Your task to perform on an android device: Look up the best rated kitchen knives on Amazon. Image 0: 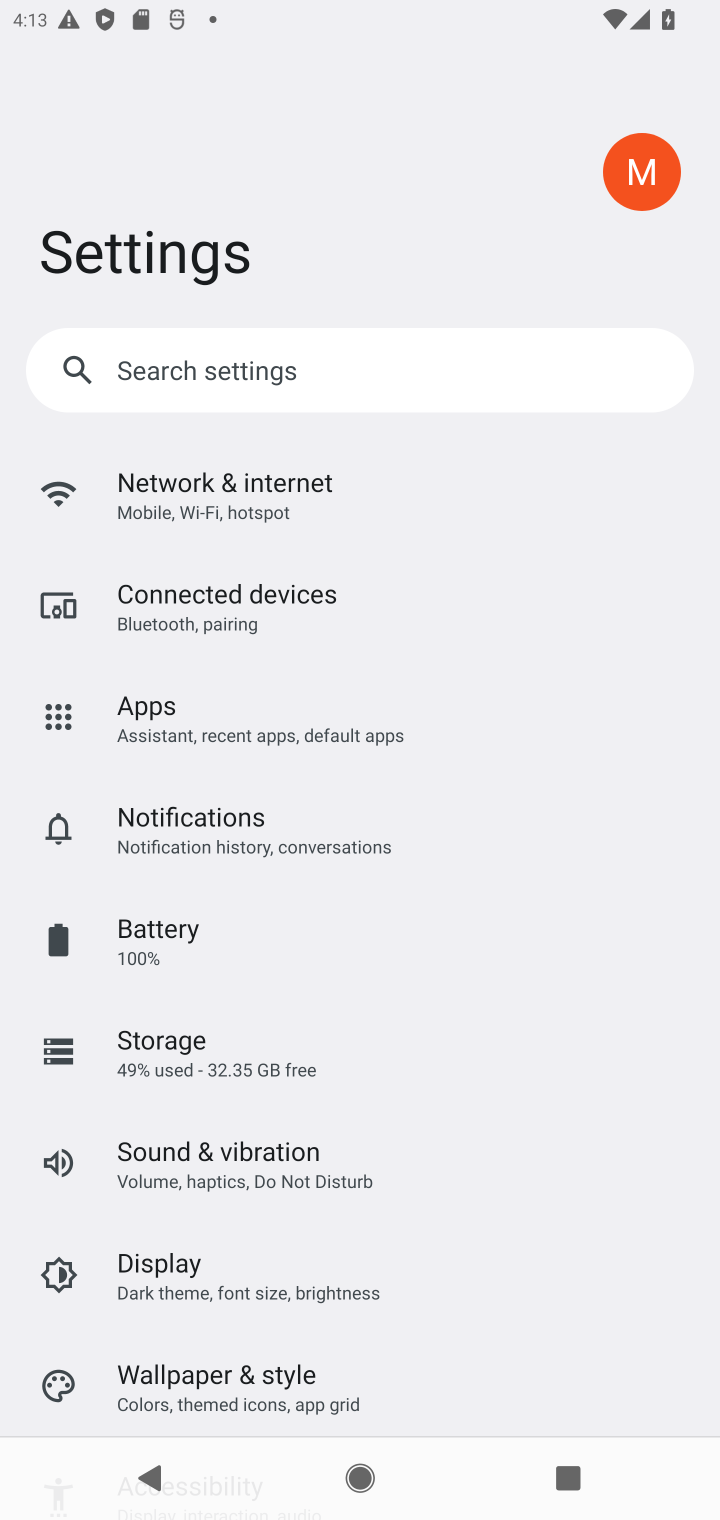
Step 0: press home button
Your task to perform on an android device: Look up the best rated kitchen knives on Amazon. Image 1: 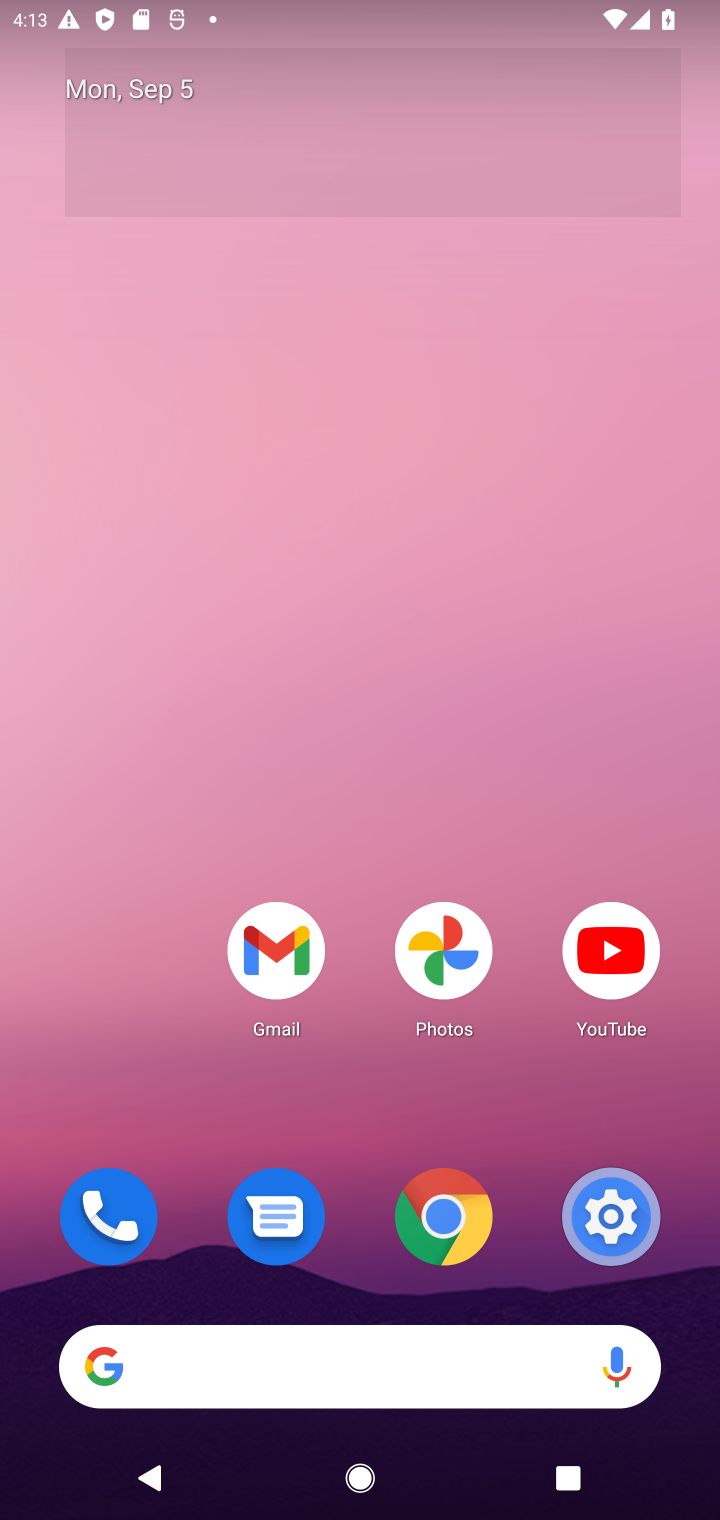
Step 1: click (96, 1377)
Your task to perform on an android device: Look up the best rated kitchen knives on Amazon. Image 2: 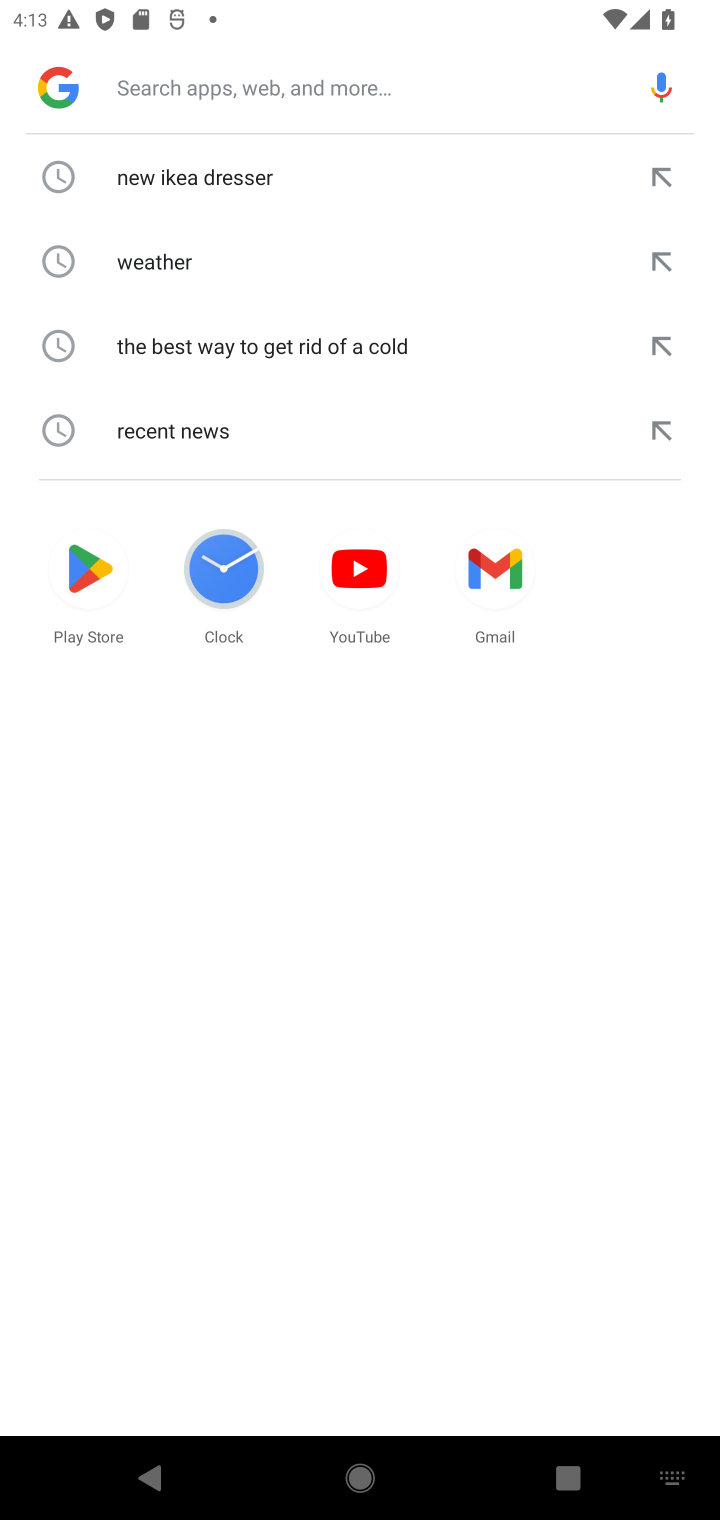
Step 2: type "Amazon"
Your task to perform on an android device: Look up the best rated kitchen knives on Amazon. Image 3: 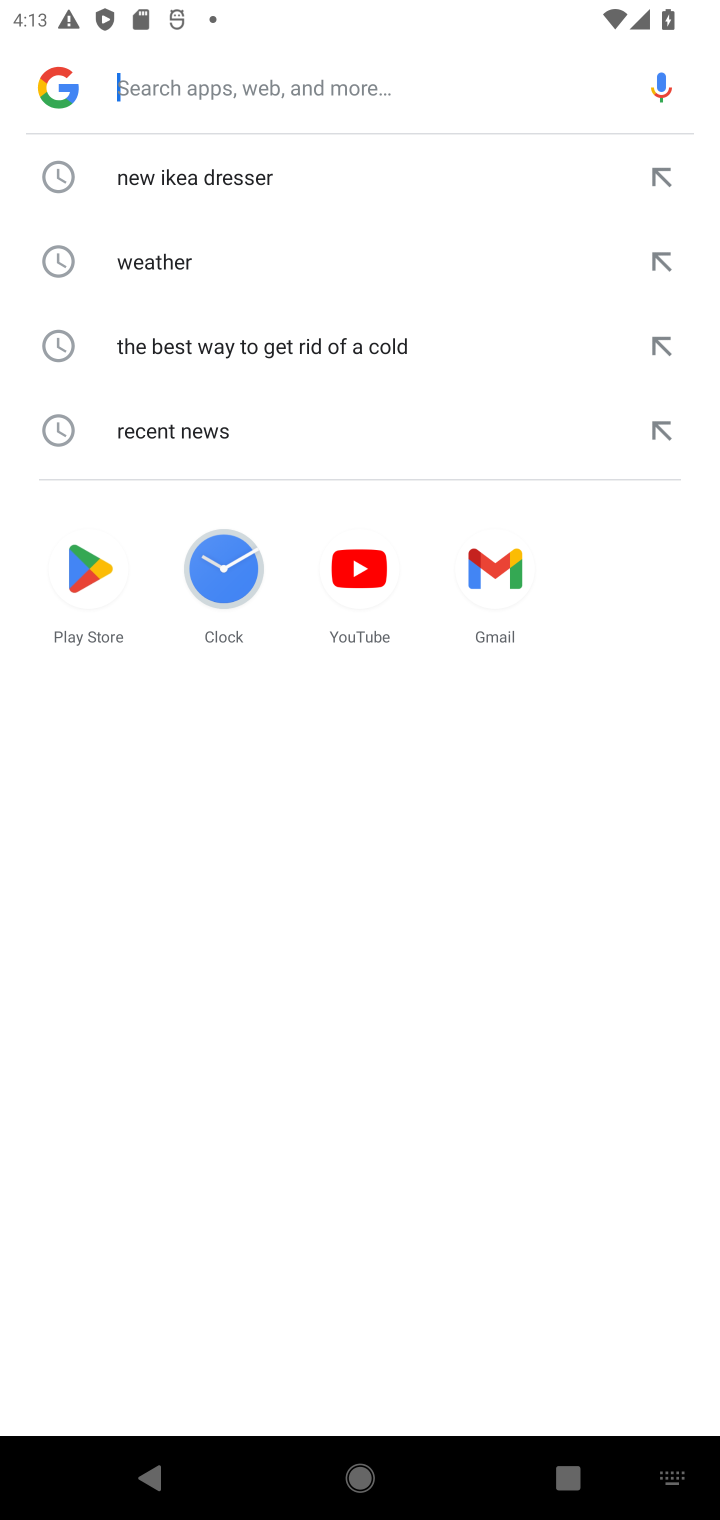
Step 3: click (179, 91)
Your task to perform on an android device: Look up the best rated kitchen knives on Amazon. Image 4: 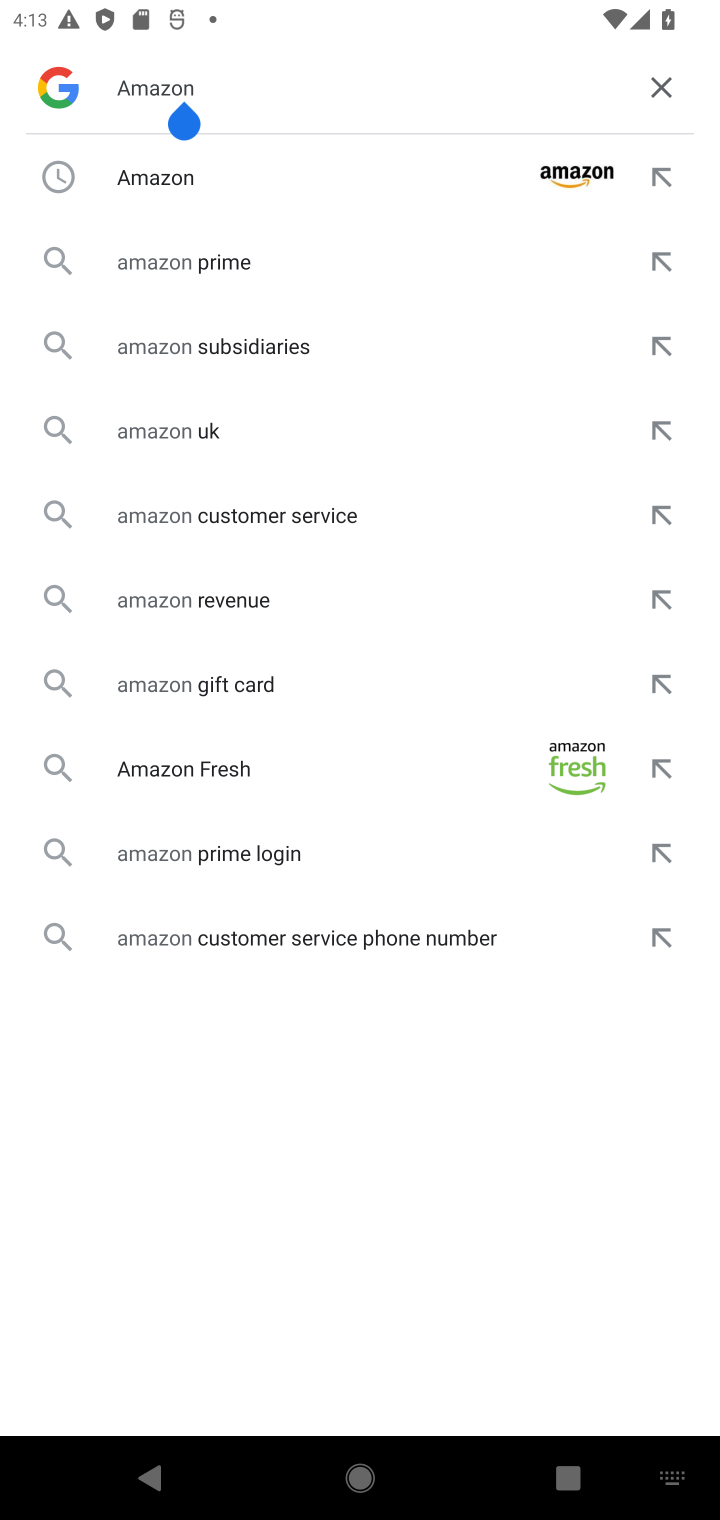
Step 4: click (565, 169)
Your task to perform on an android device: Look up the best rated kitchen knives on Amazon. Image 5: 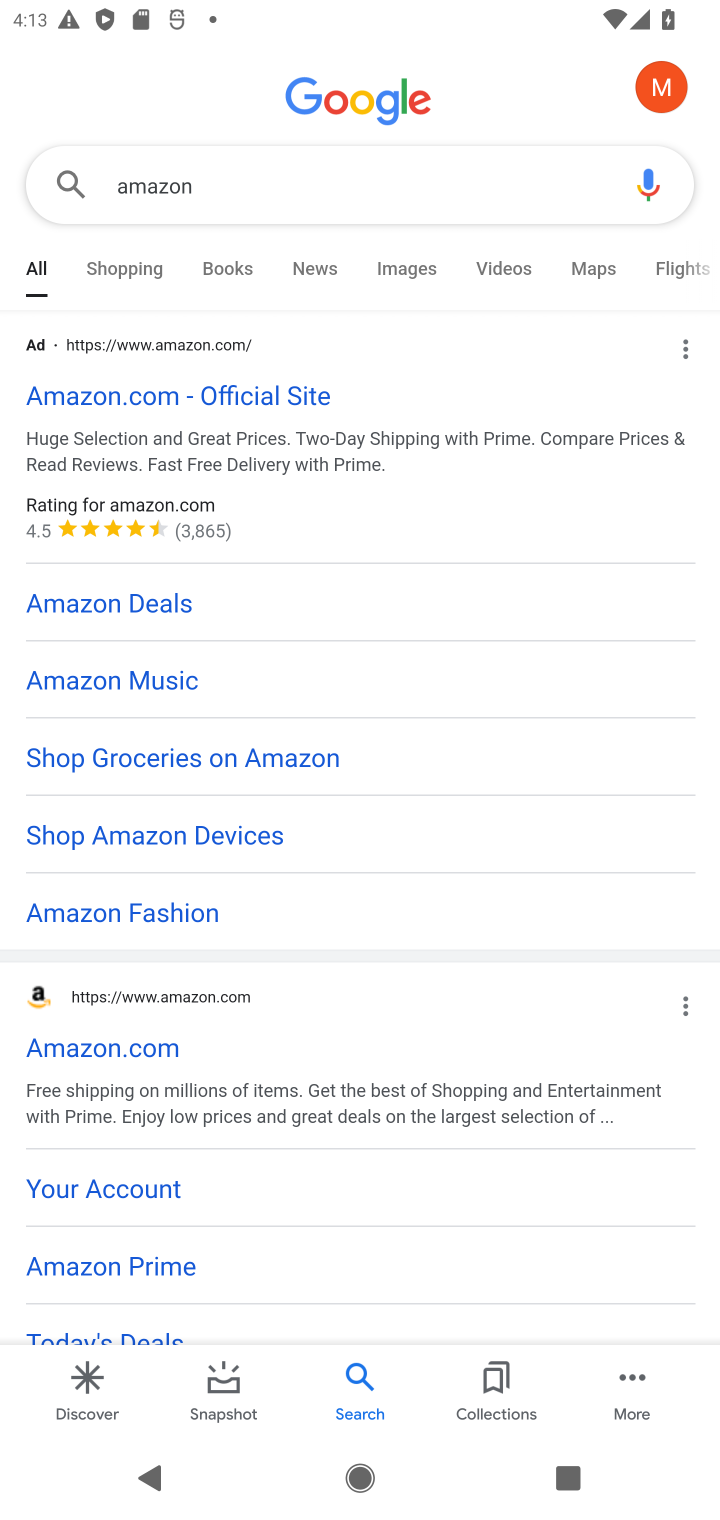
Step 5: click (111, 1056)
Your task to perform on an android device: Look up the best rated kitchen knives on Amazon. Image 6: 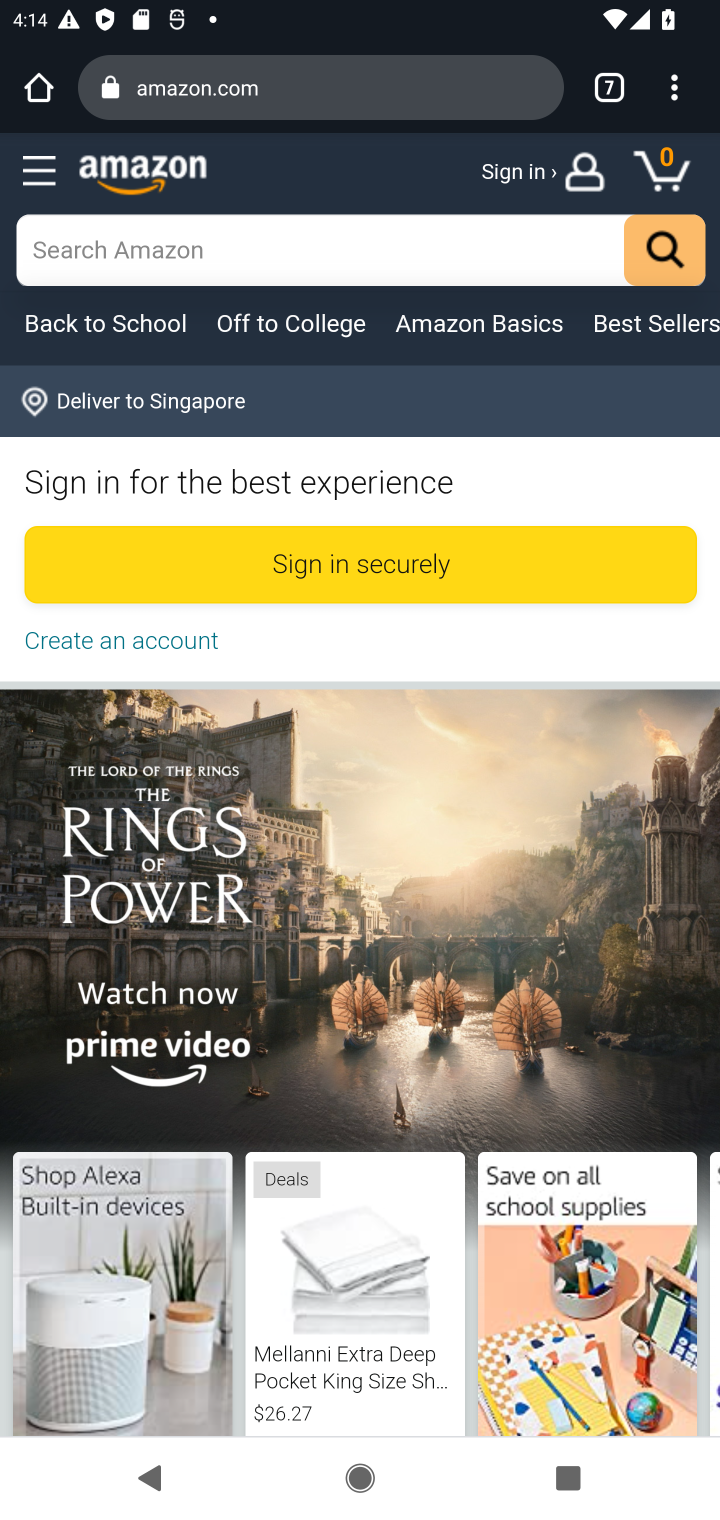
Step 6: click (161, 268)
Your task to perform on an android device: Look up the best rated kitchen knives on Amazon. Image 7: 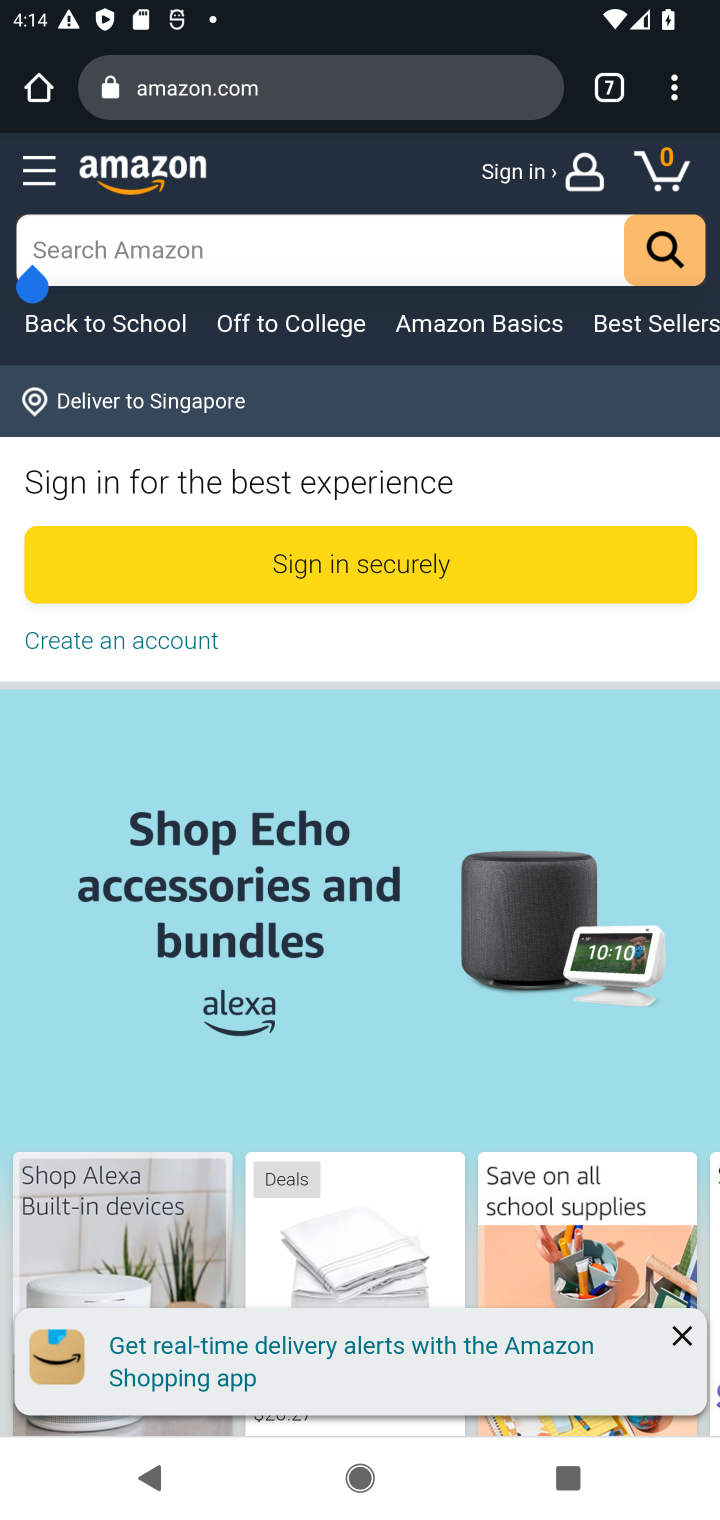
Step 7: type "kitchen knives"
Your task to perform on an android device: Look up the best rated kitchen knives on Amazon. Image 8: 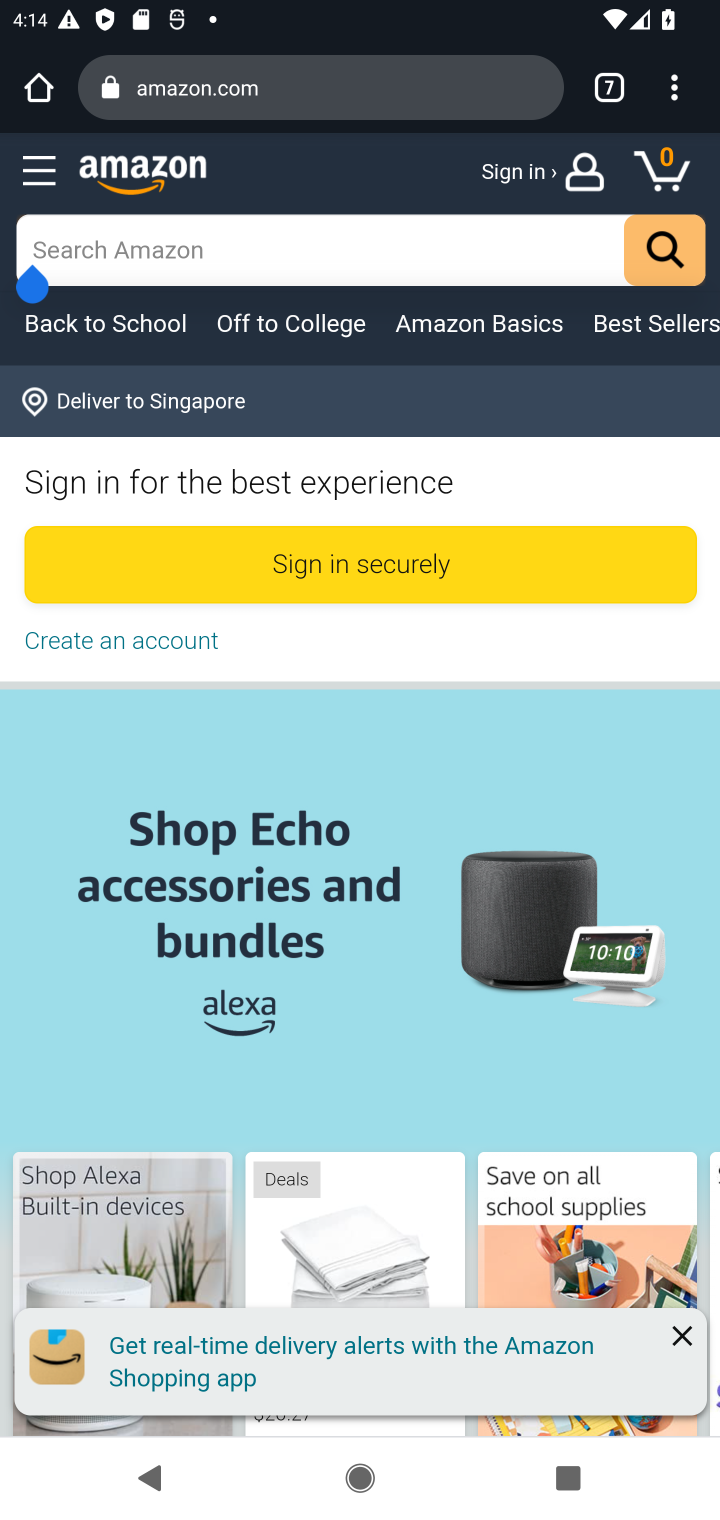
Step 8: click (262, 246)
Your task to perform on an android device: Look up the best rated kitchen knives on Amazon. Image 9: 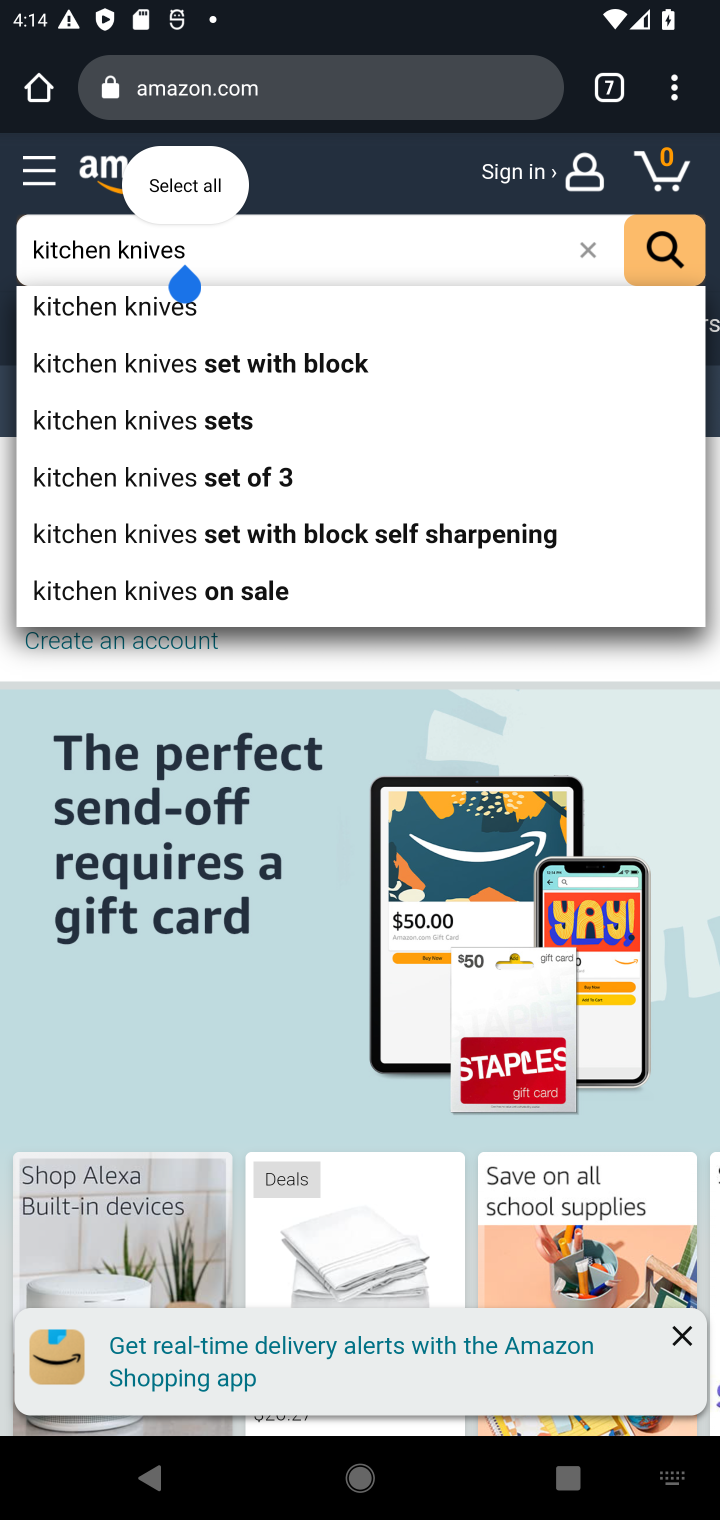
Step 9: press enter
Your task to perform on an android device: Look up the best rated kitchen knives on Amazon. Image 10: 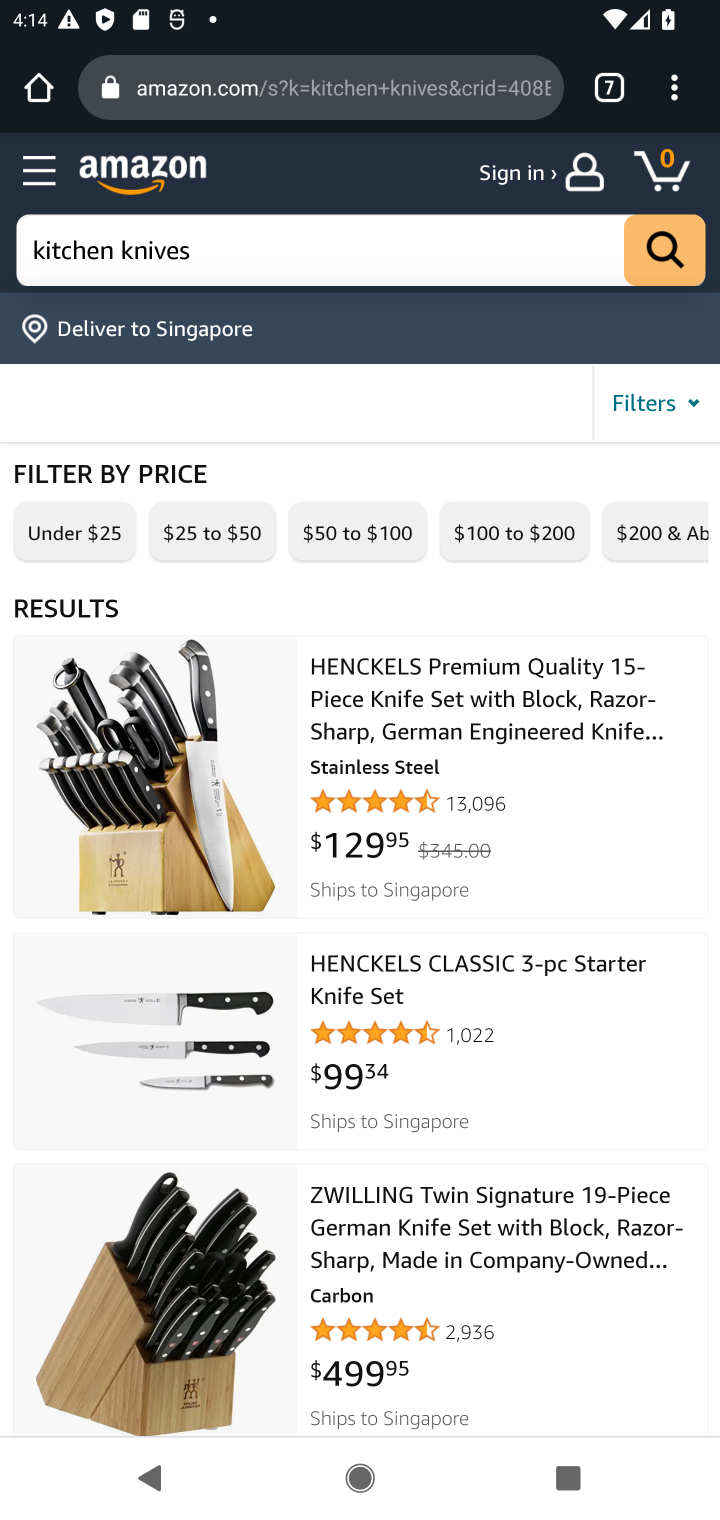
Step 10: click (694, 416)
Your task to perform on an android device: Look up the best rated kitchen knives on Amazon. Image 11: 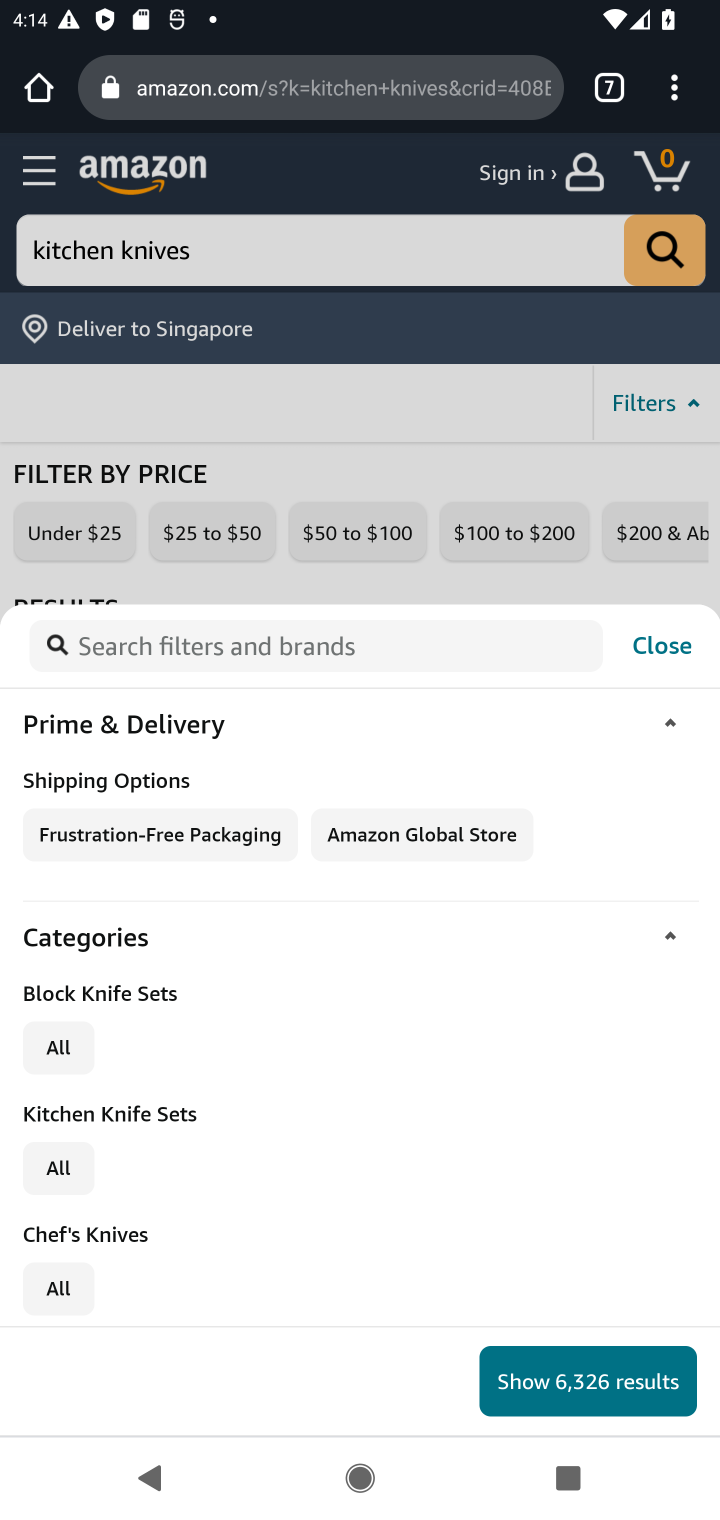
Step 11: drag from (387, 1208) to (395, 365)
Your task to perform on an android device: Look up the best rated kitchen knives on Amazon. Image 12: 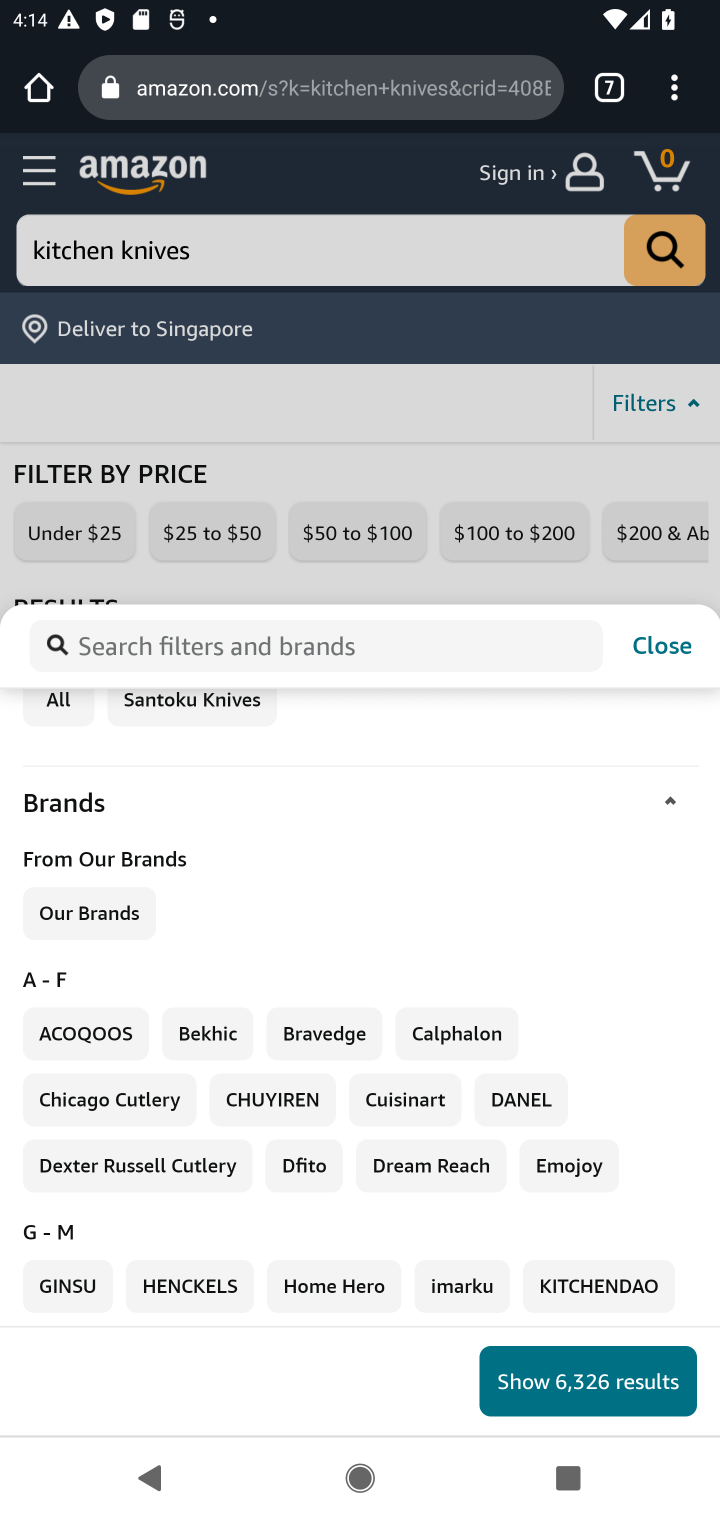
Step 12: drag from (650, 1154) to (596, 545)
Your task to perform on an android device: Look up the best rated kitchen knives on Amazon. Image 13: 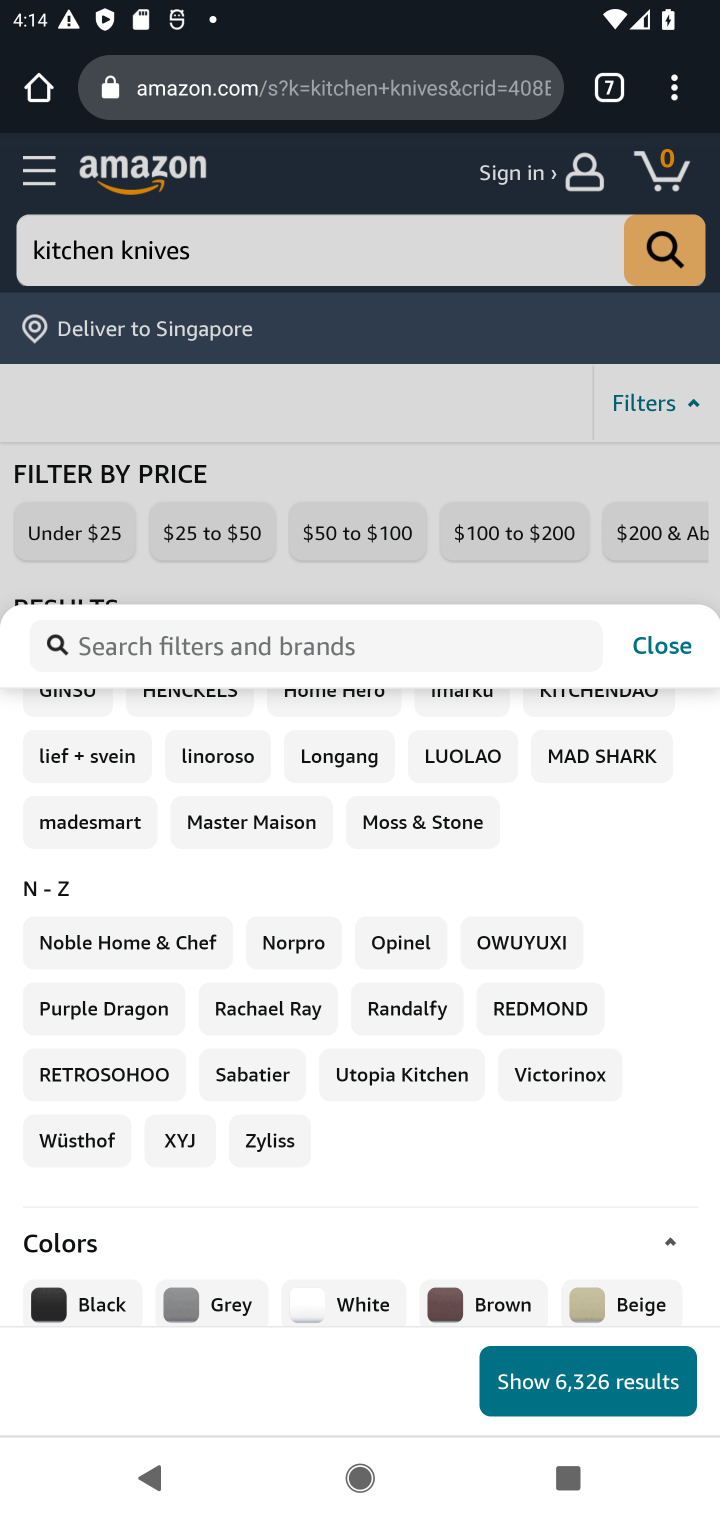
Step 13: drag from (374, 1231) to (418, 662)
Your task to perform on an android device: Look up the best rated kitchen knives on Amazon. Image 14: 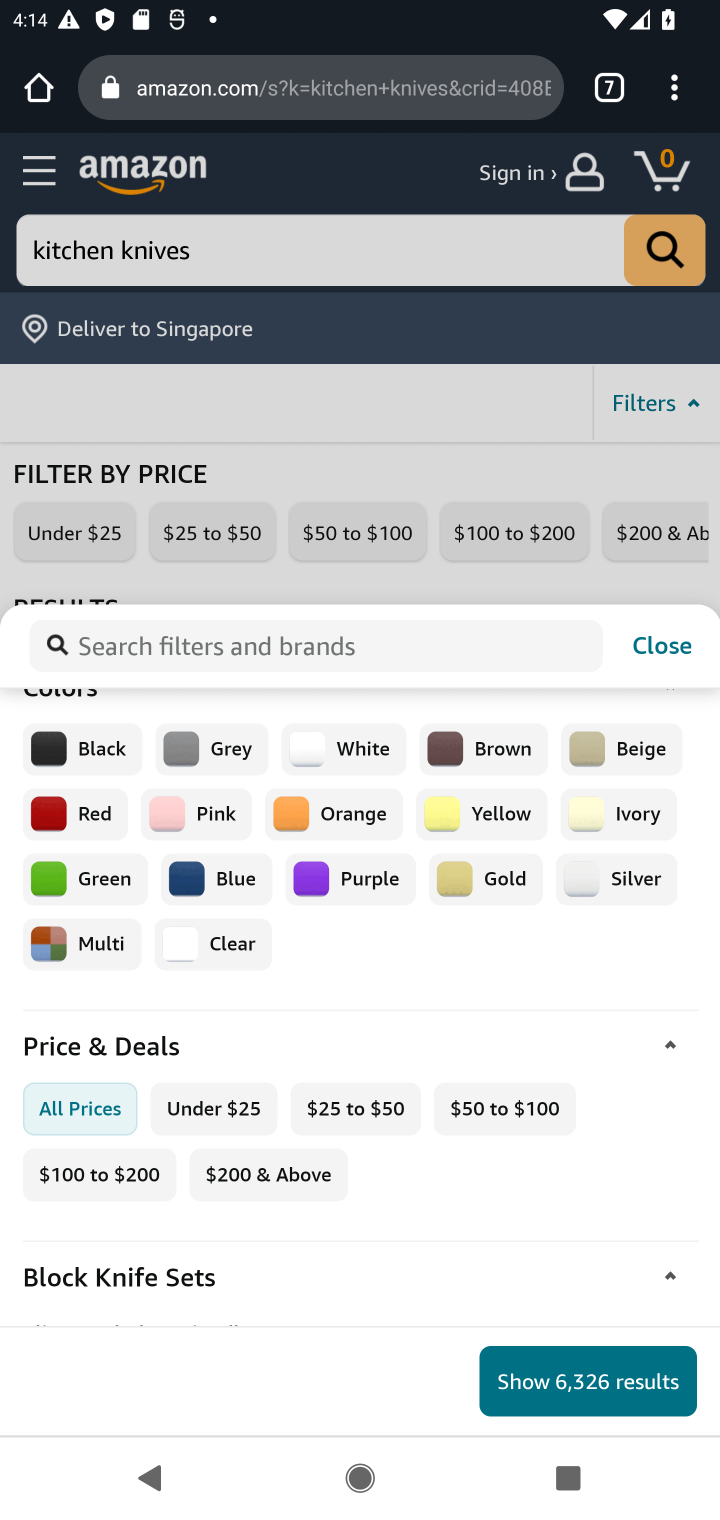
Step 14: drag from (536, 1214) to (489, 564)
Your task to perform on an android device: Look up the best rated kitchen knives on Amazon. Image 15: 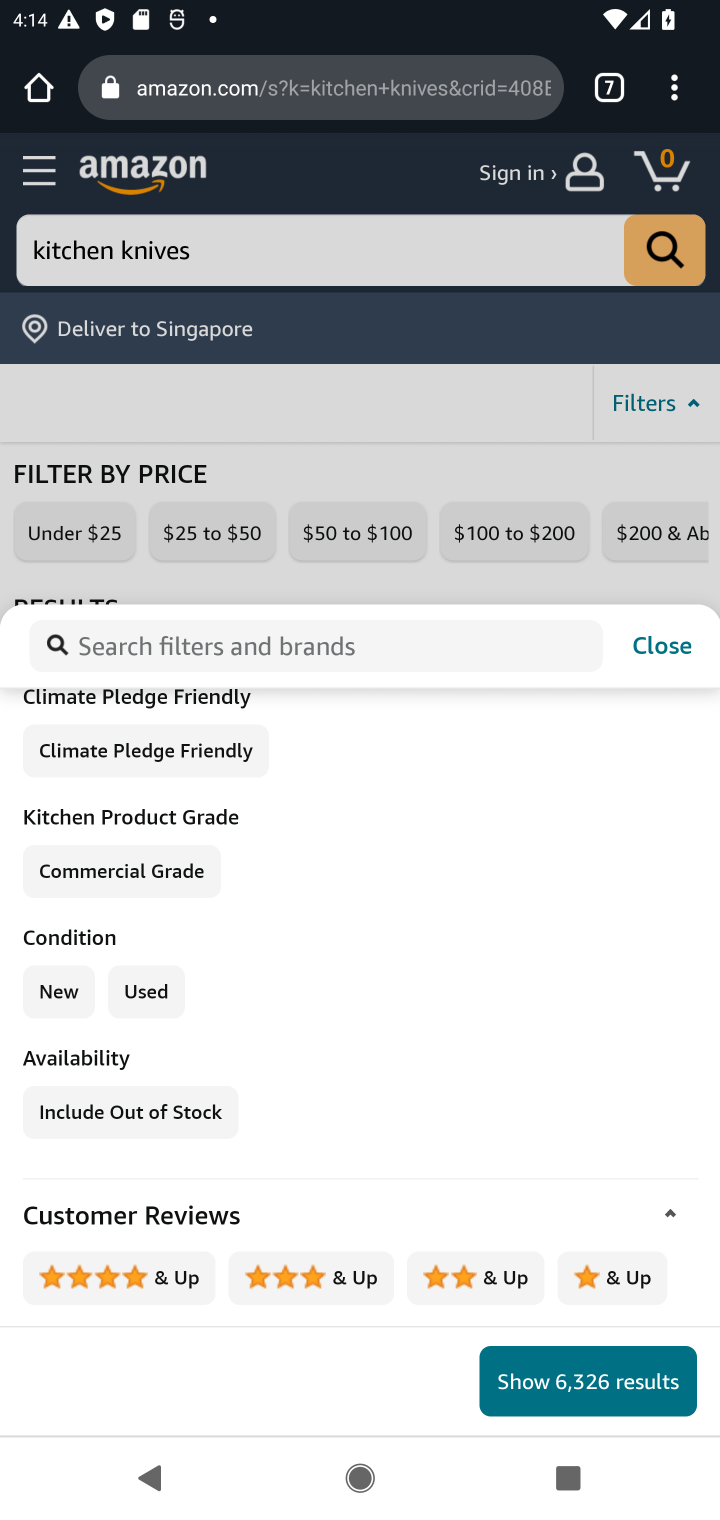
Step 15: click (83, 1279)
Your task to perform on an android device: Look up the best rated kitchen knives on Amazon. Image 16: 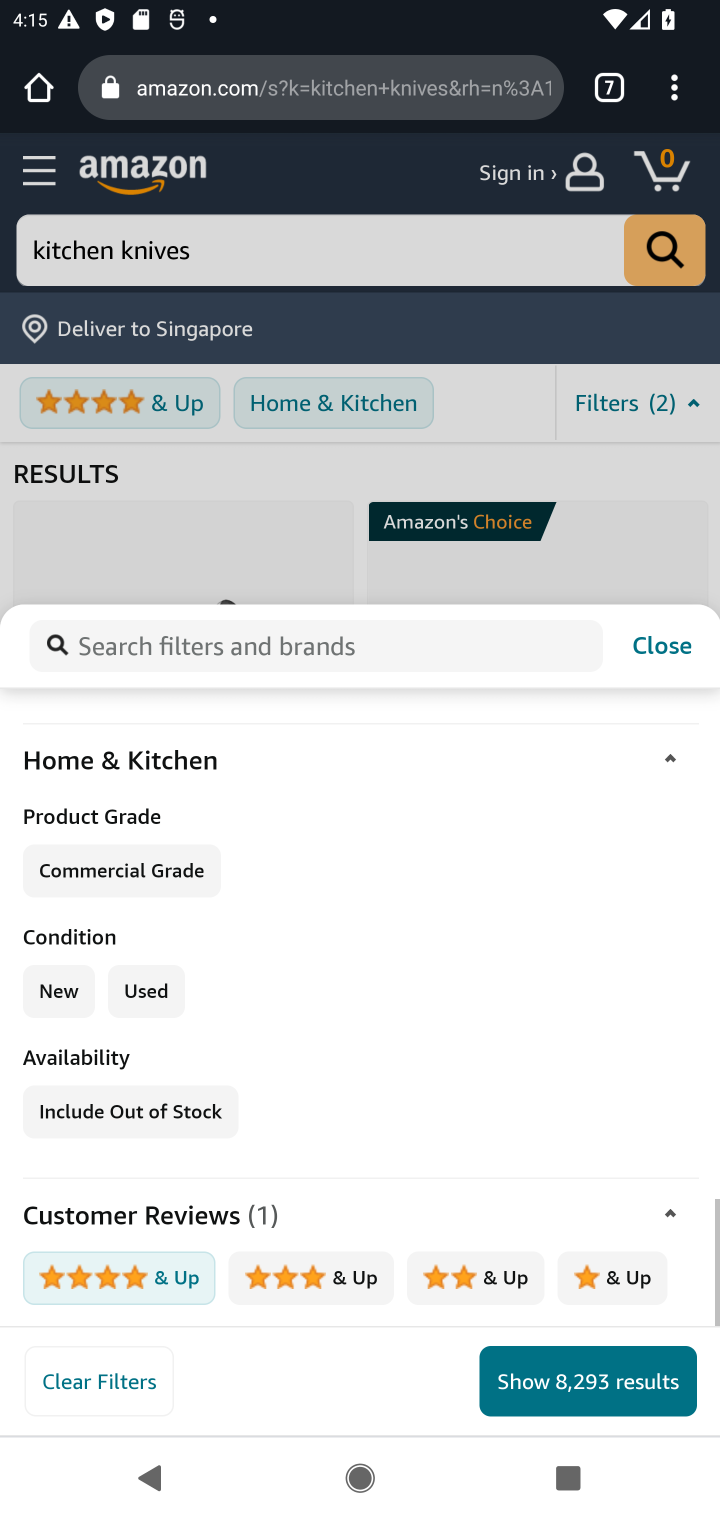
Step 16: click (551, 1370)
Your task to perform on an android device: Look up the best rated kitchen knives on Amazon. Image 17: 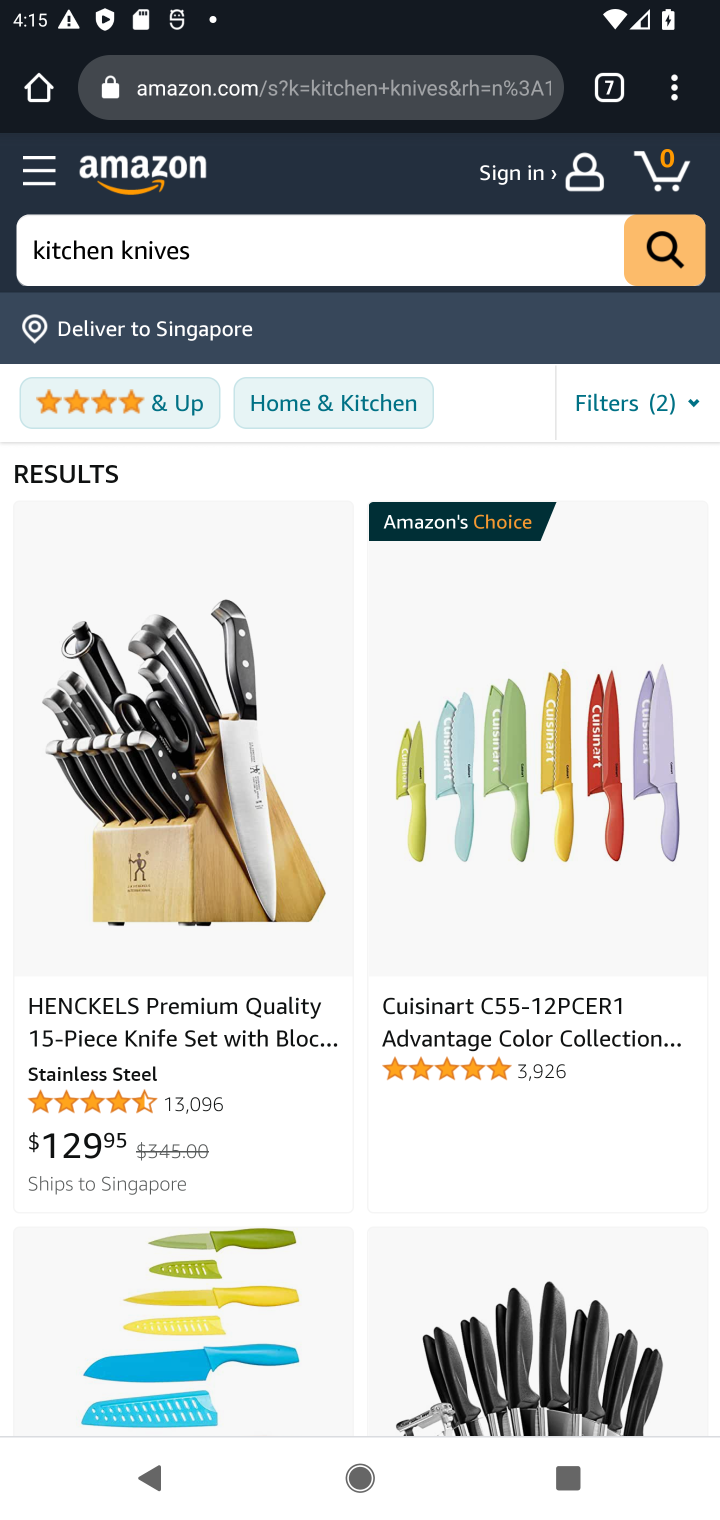
Step 17: task complete